Your task to perform on an android device: Open maps Image 0: 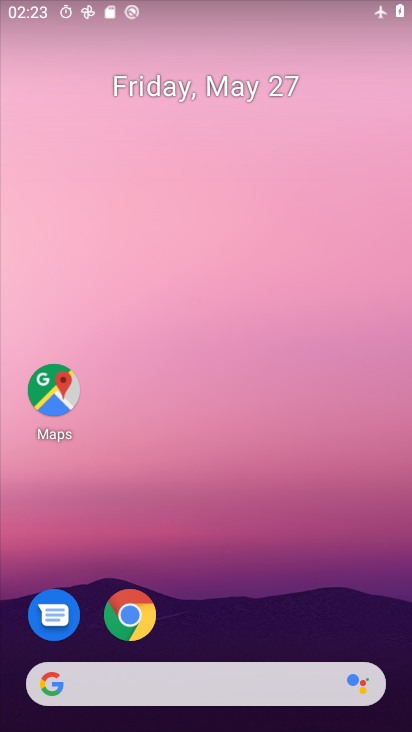
Step 0: drag from (383, 632) to (383, 210)
Your task to perform on an android device: Open maps Image 1: 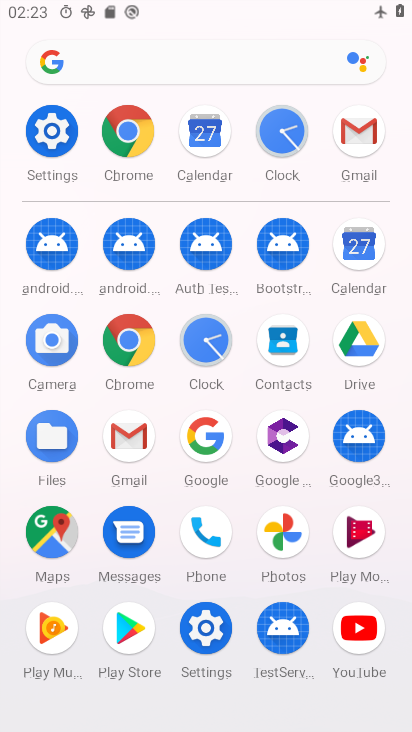
Step 1: click (48, 538)
Your task to perform on an android device: Open maps Image 2: 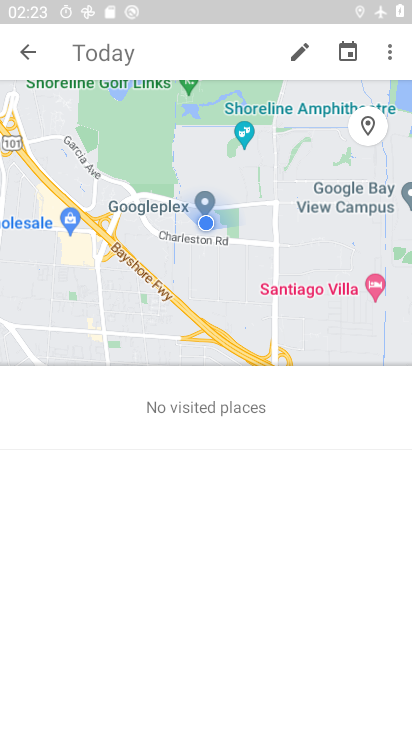
Step 2: task complete